Your task to perform on an android device: Search for vegetarian restaurants on Maps Image 0: 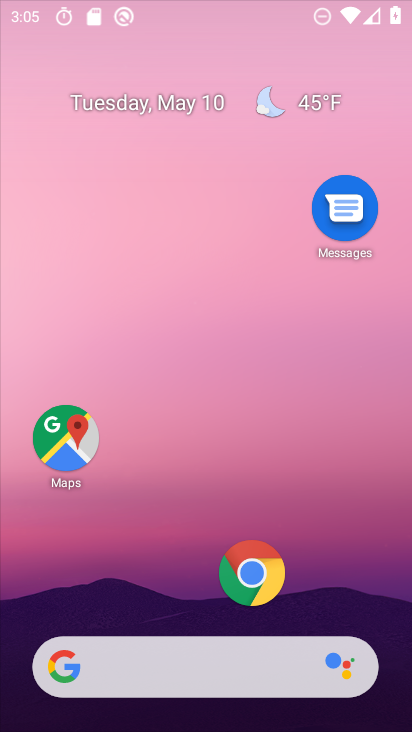
Step 0: drag from (134, 624) to (223, 253)
Your task to perform on an android device: Search for vegetarian restaurants on Maps Image 1: 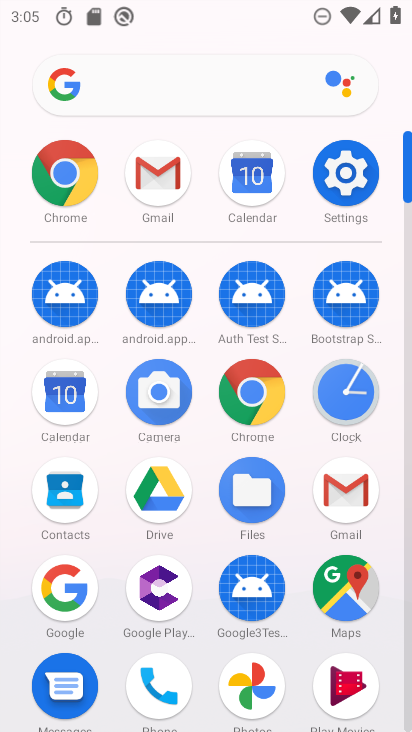
Step 1: drag from (232, 614) to (271, 293)
Your task to perform on an android device: Search for vegetarian restaurants on Maps Image 2: 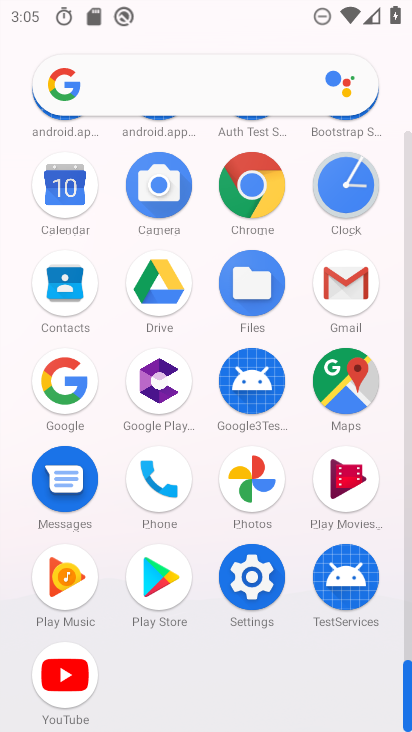
Step 2: click (347, 381)
Your task to perform on an android device: Search for vegetarian restaurants on Maps Image 3: 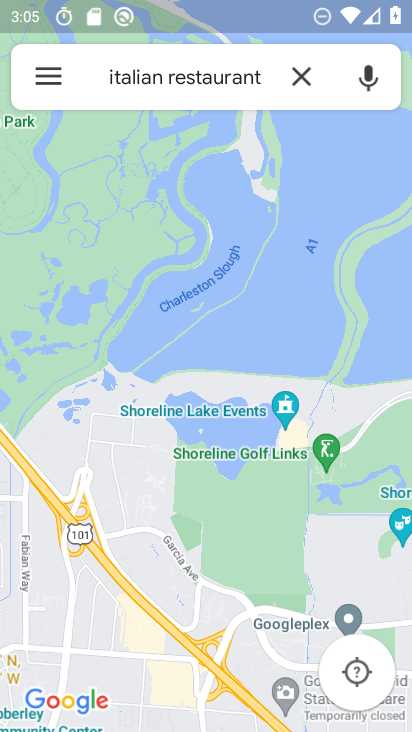
Step 3: drag from (242, 633) to (294, 178)
Your task to perform on an android device: Search for vegetarian restaurants on Maps Image 4: 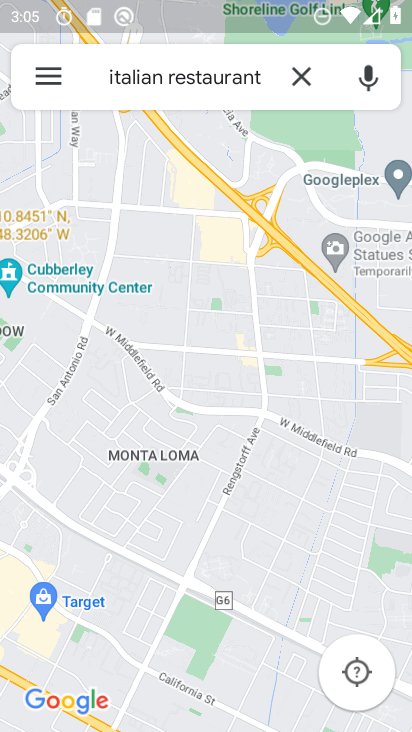
Step 4: click (302, 83)
Your task to perform on an android device: Search for vegetarian restaurants on Maps Image 5: 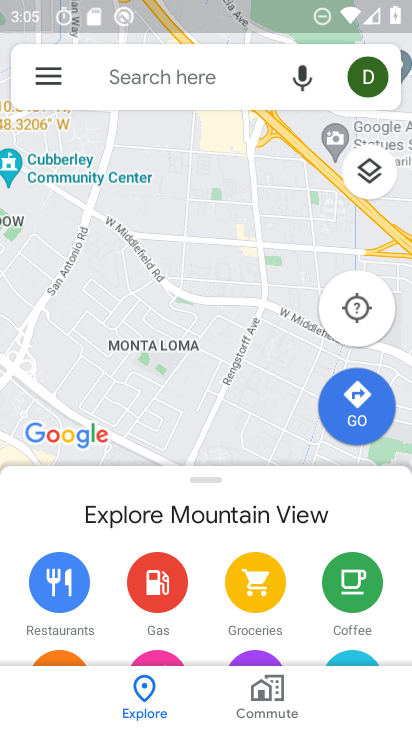
Step 5: click (213, 76)
Your task to perform on an android device: Search for vegetarian restaurants on Maps Image 6: 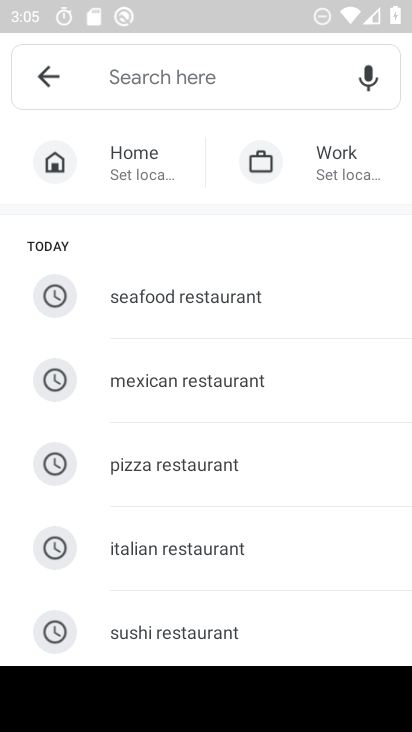
Step 6: drag from (196, 625) to (253, 340)
Your task to perform on an android device: Search for vegetarian restaurants on Maps Image 7: 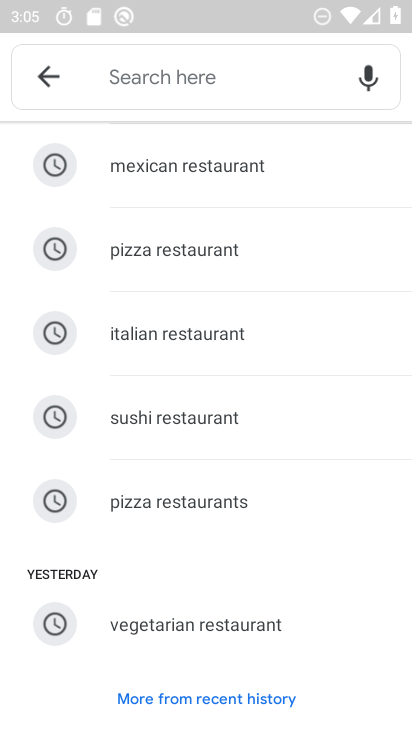
Step 7: click (193, 625)
Your task to perform on an android device: Search for vegetarian restaurants on Maps Image 8: 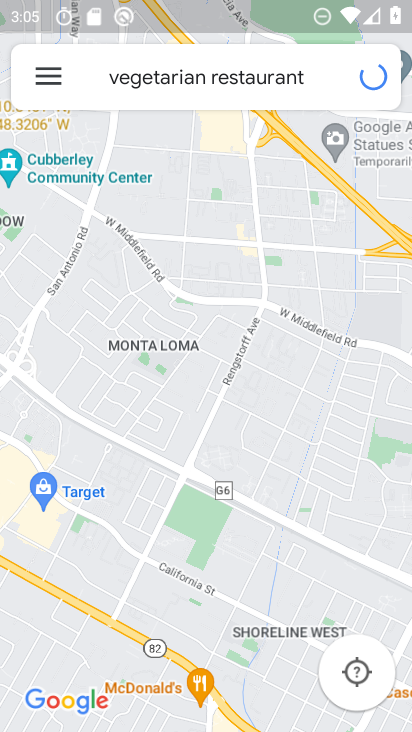
Step 8: drag from (170, 567) to (212, 310)
Your task to perform on an android device: Search for vegetarian restaurants on Maps Image 9: 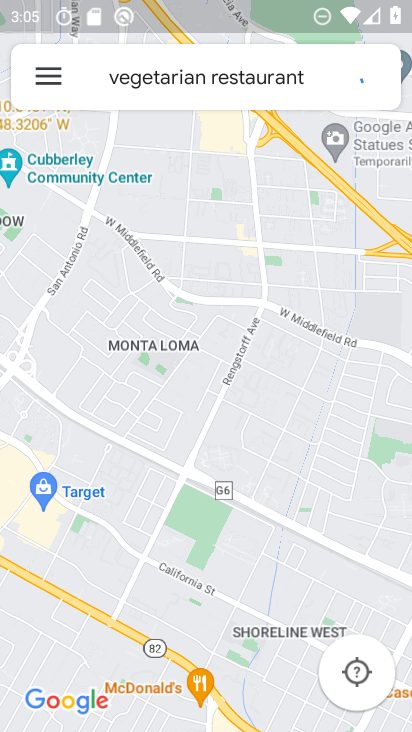
Step 9: drag from (196, 380) to (326, 392)
Your task to perform on an android device: Search for vegetarian restaurants on Maps Image 10: 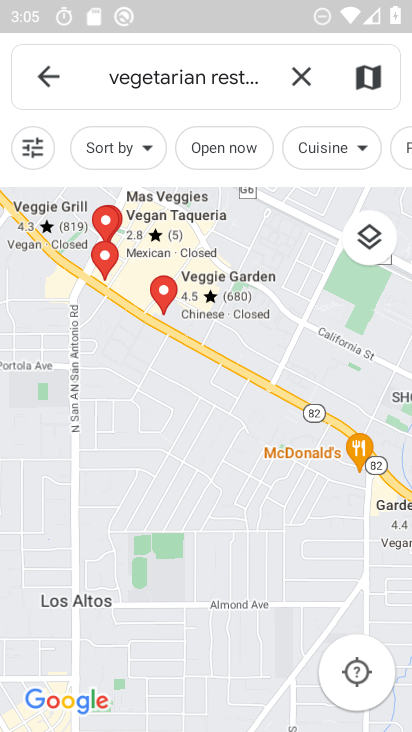
Step 10: drag from (203, 340) to (325, 401)
Your task to perform on an android device: Search for vegetarian restaurants on Maps Image 11: 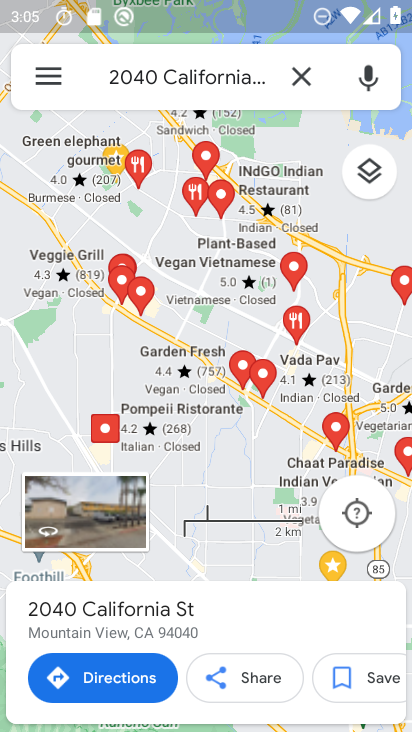
Step 11: drag from (117, 363) to (300, 372)
Your task to perform on an android device: Search for vegetarian restaurants on Maps Image 12: 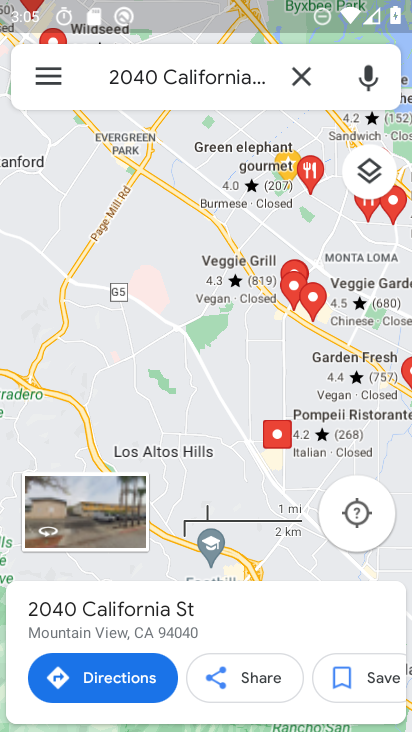
Step 12: drag from (318, 350) to (137, 280)
Your task to perform on an android device: Search for vegetarian restaurants on Maps Image 13: 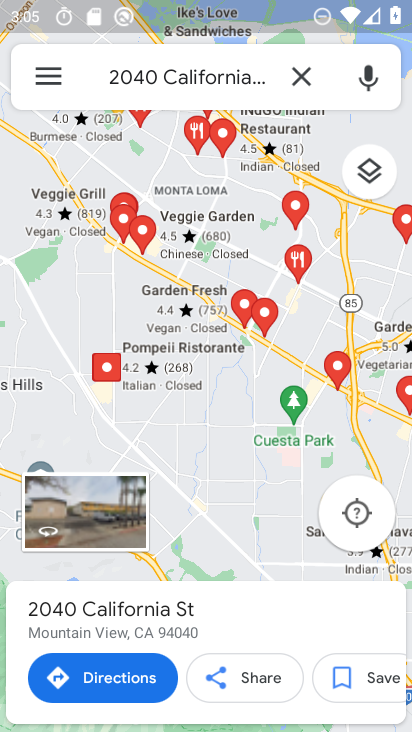
Step 13: click (304, 85)
Your task to perform on an android device: Search for vegetarian restaurants on Maps Image 14: 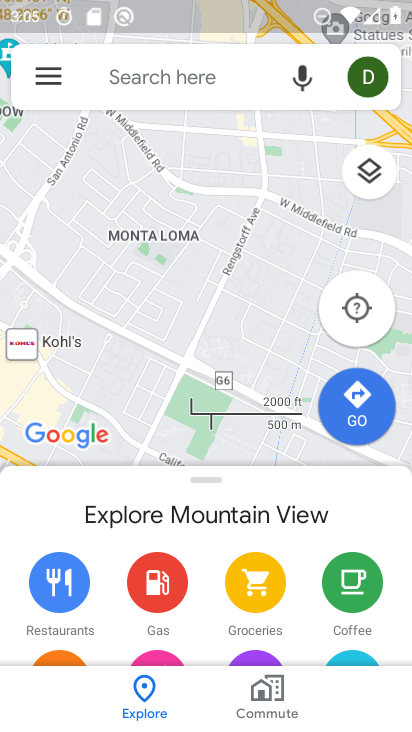
Step 14: click (144, 83)
Your task to perform on an android device: Search for vegetarian restaurants on Maps Image 15: 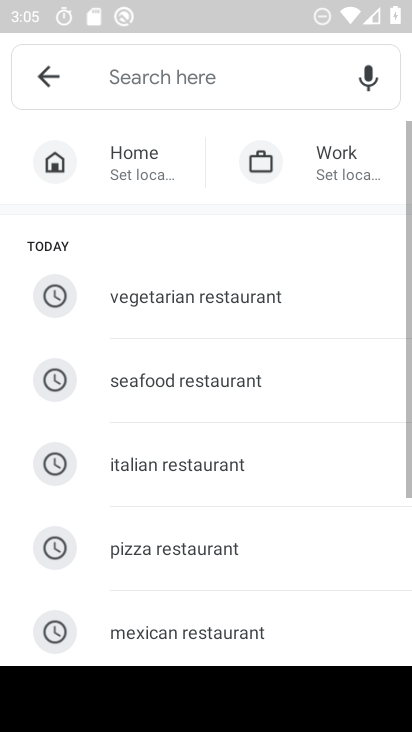
Step 15: click (184, 305)
Your task to perform on an android device: Search for vegetarian restaurants on Maps Image 16: 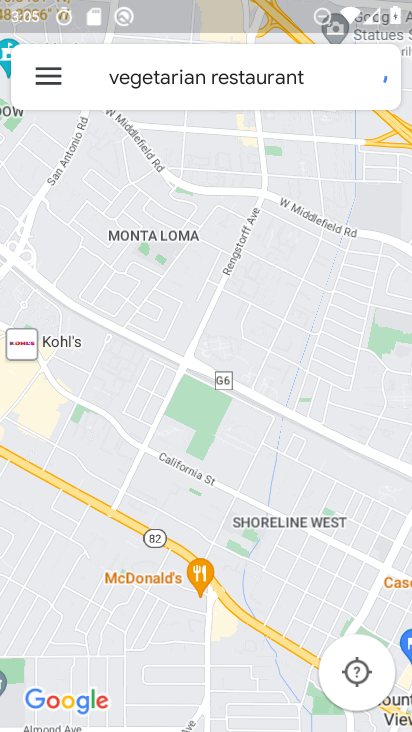
Step 16: task complete